Your task to perform on an android device: Search for vegetarian restaurants on Maps Image 0: 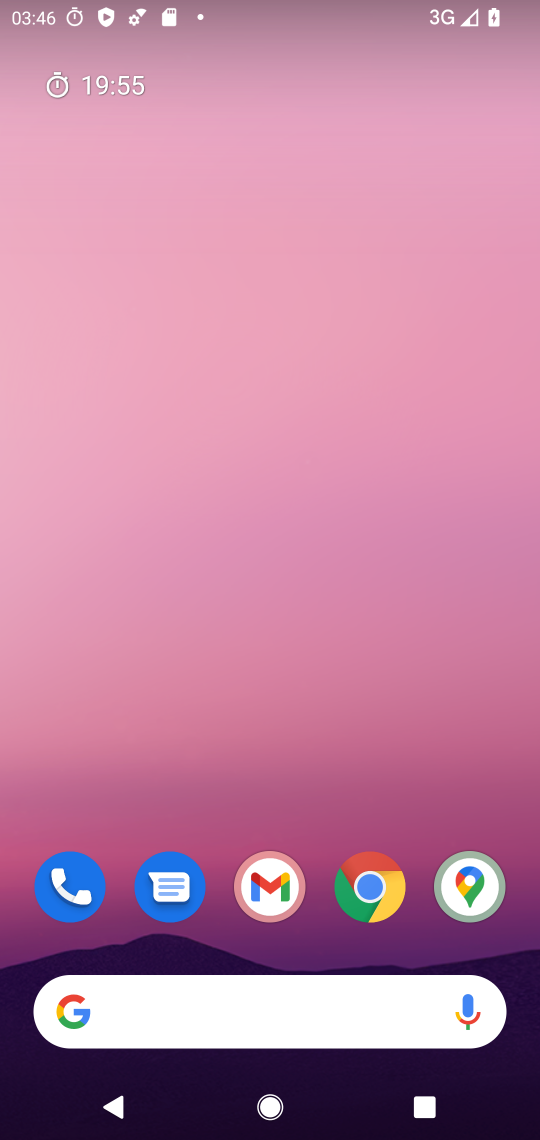
Step 0: press home button
Your task to perform on an android device: Search for vegetarian restaurants on Maps Image 1: 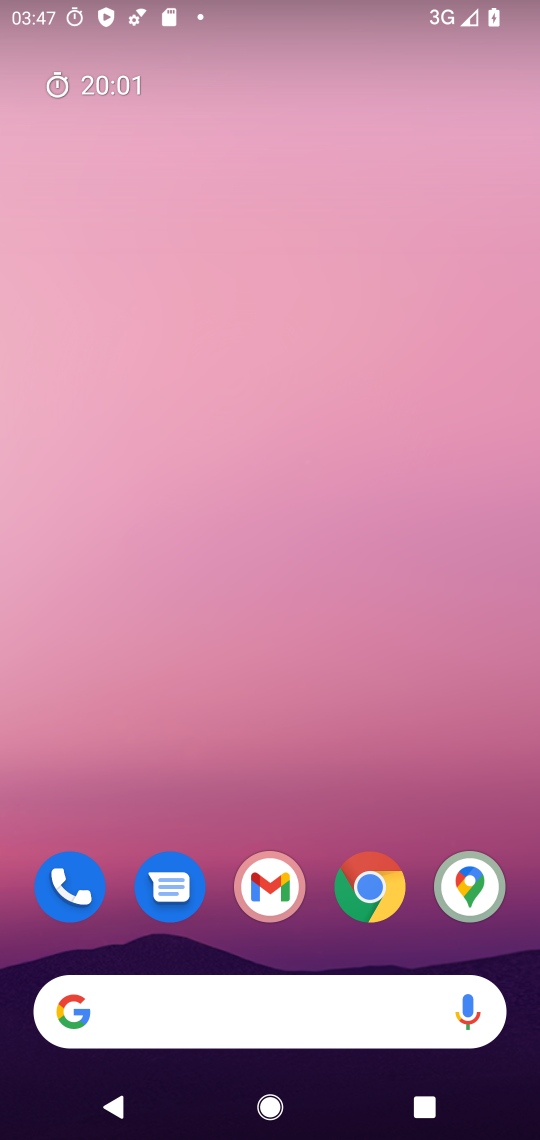
Step 1: drag from (413, 801) to (406, 270)
Your task to perform on an android device: Search for vegetarian restaurants on Maps Image 2: 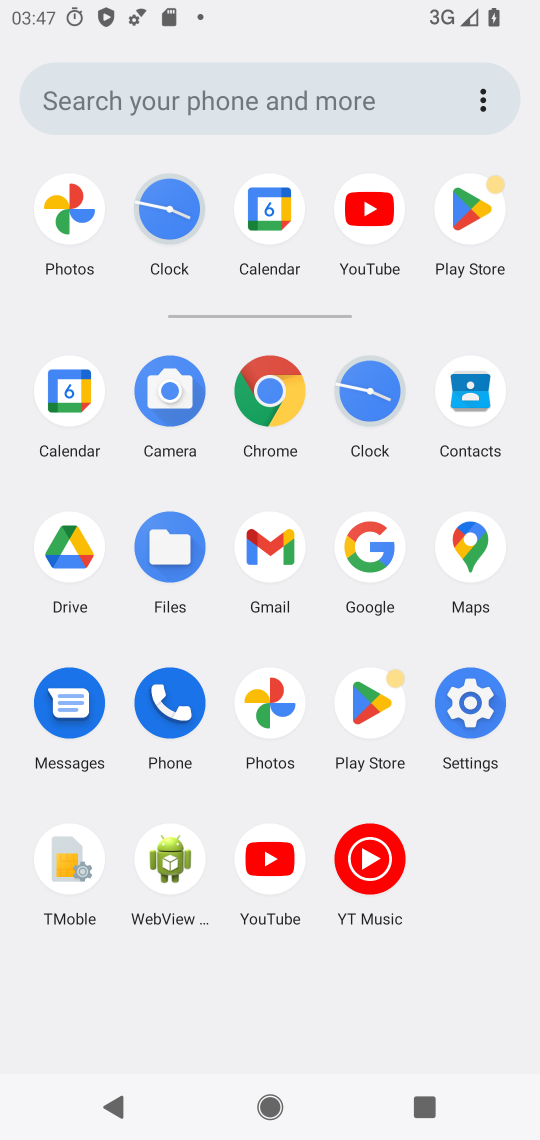
Step 2: click (458, 542)
Your task to perform on an android device: Search for vegetarian restaurants on Maps Image 3: 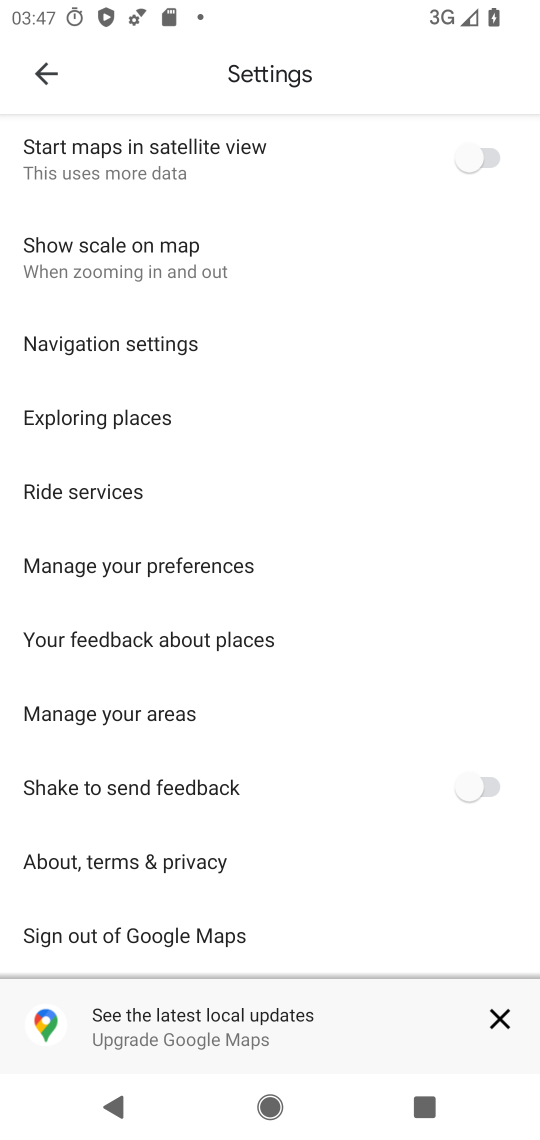
Step 3: press back button
Your task to perform on an android device: Search for vegetarian restaurants on Maps Image 4: 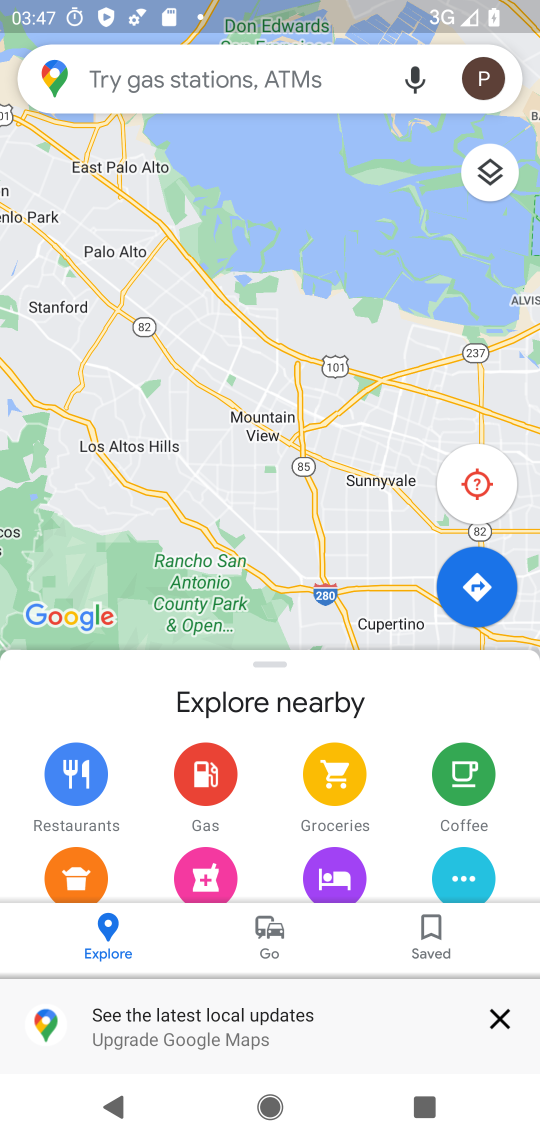
Step 4: click (237, 78)
Your task to perform on an android device: Search for vegetarian restaurants on Maps Image 5: 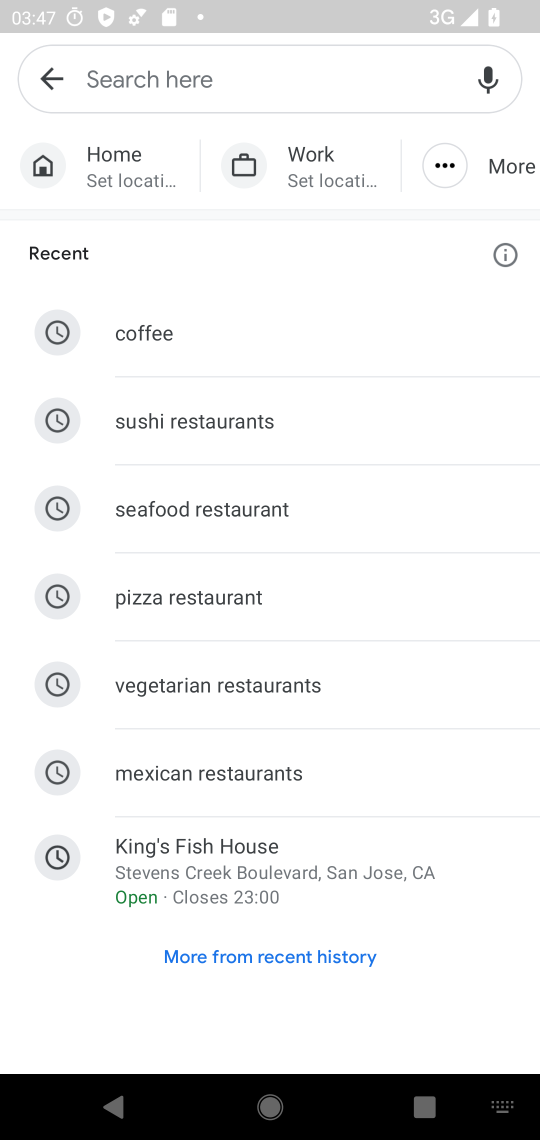
Step 5: type "vegetrain restaurants"
Your task to perform on an android device: Search for vegetarian restaurants on Maps Image 6: 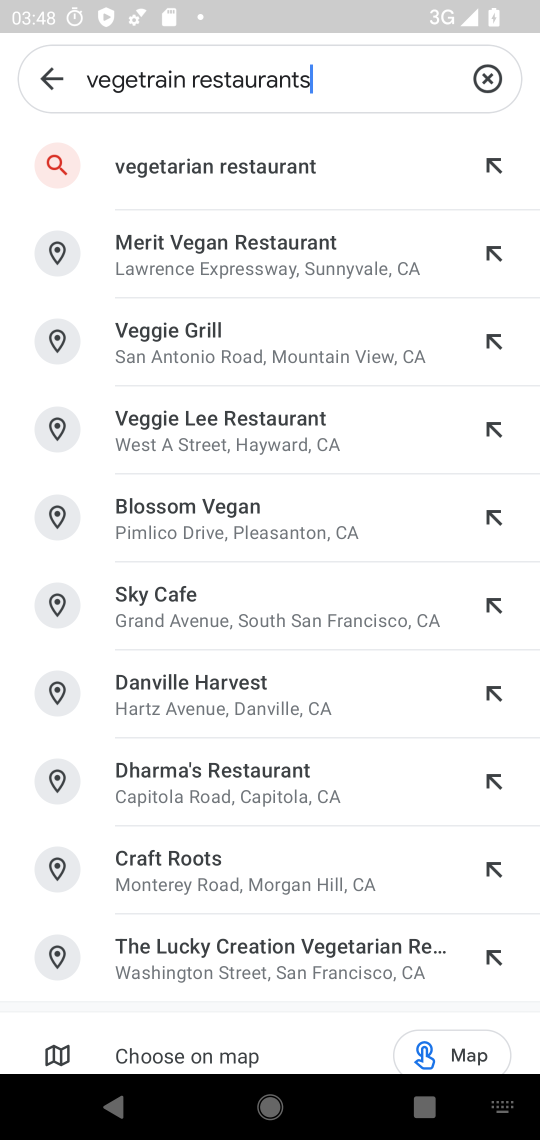
Step 6: click (339, 174)
Your task to perform on an android device: Search for vegetarian restaurants on Maps Image 7: 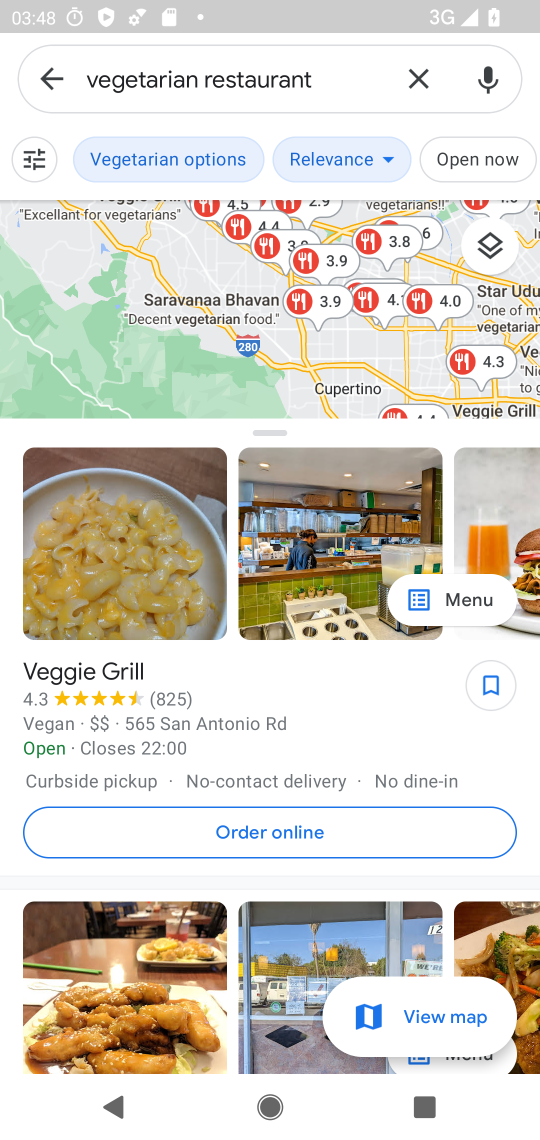
Step 7: task complete